Your task to perform on an android device: toggle location history Image 0: 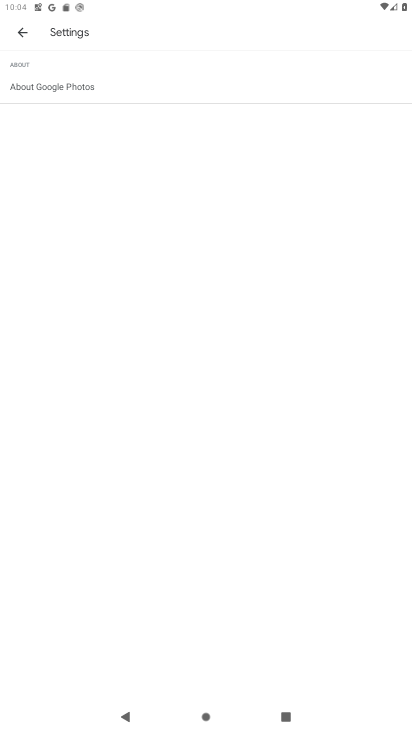
Step 0: press home button
Your task to perform on an android device: toggle location history Image 1: 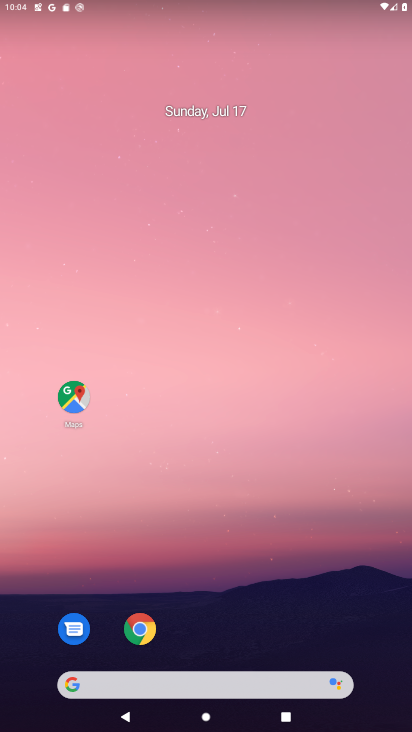
Step 1: drag from (188, 682) to (252, 120)
Your task to perform on an android device: toggle location history Image 2: 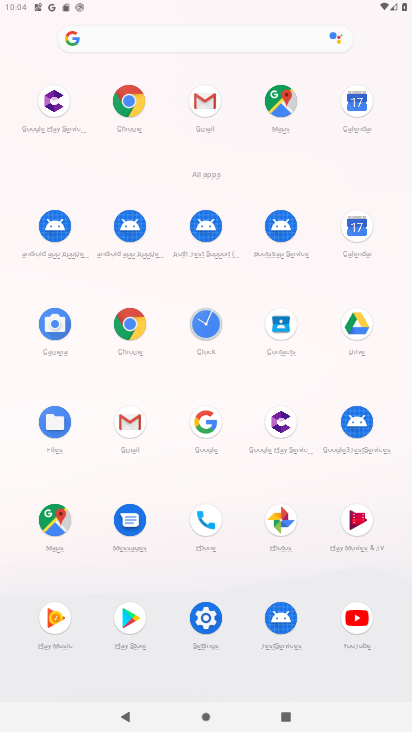
Step 2: click (205, 619)
Your task to perform on an android device: toggle location history Image 3: 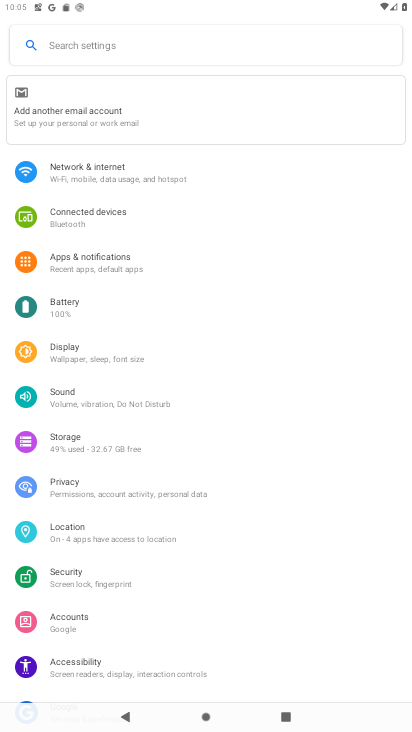
Step 3: click (70, 529)
Your task to perform on an android device: toggle location history Image 4: 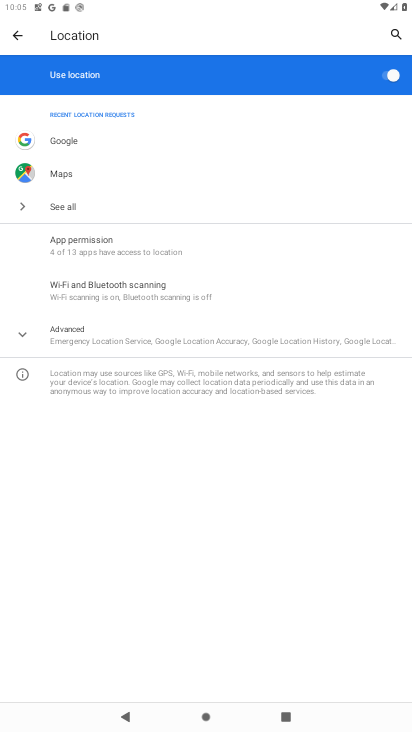
Step 4: click (156, 345)
Your task to perform on an android device: toggle location history Image 5: 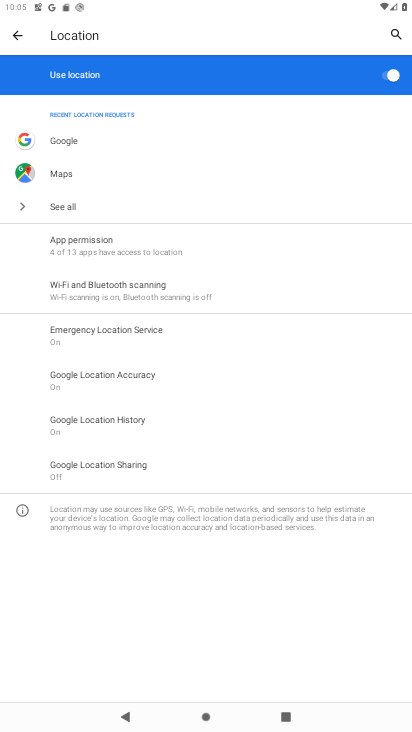
Step 5: click (135, 424)
Your task to perform on an android device: toggle location history Image 6: 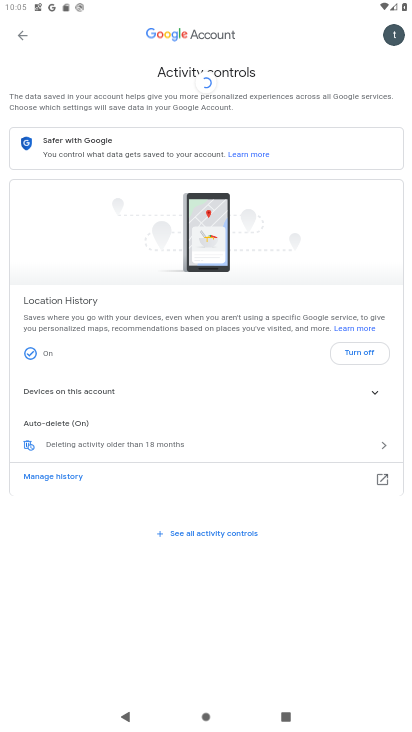
Step 6: click (367, 353)
Your task to perform on an android device: toggle location history Image 7: 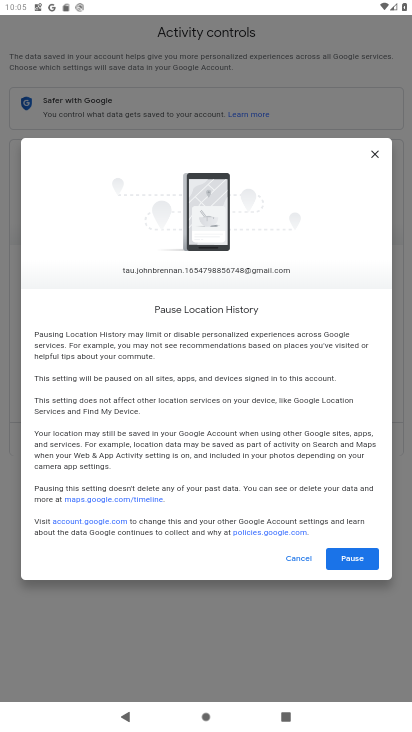
Step 7: click (353, 556)
Your task to perform on an android device: toggle location history Image 8: 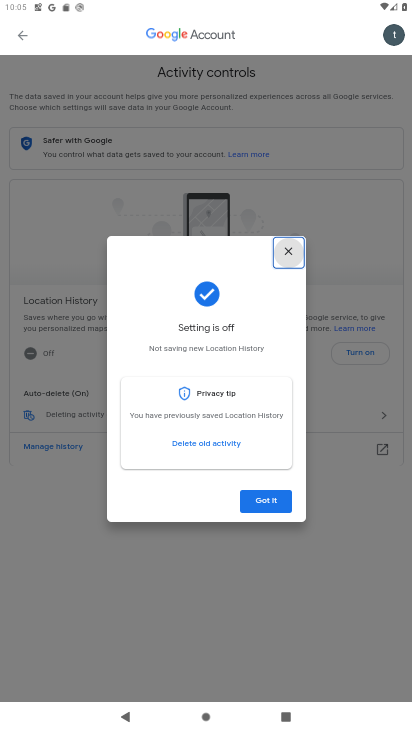
Step 8: click (269, 497)
Your task to perform on an android device: toggle location history Image 9: 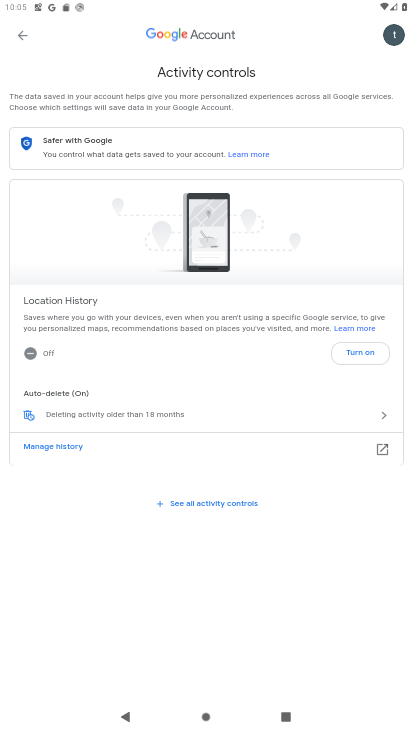
Step 9: task complete